Your task to perform on an android device: Show me productivity apps on the Play Store Image 0: 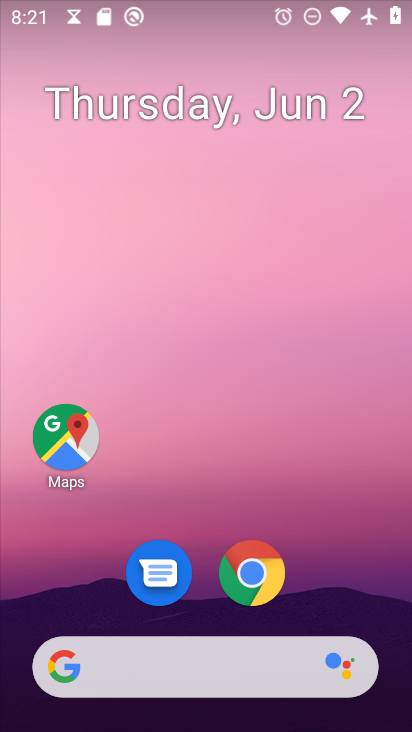
Step 0: press home button
Your task to perform on an android device: Show me productivity apps on the Play Store Image 1: 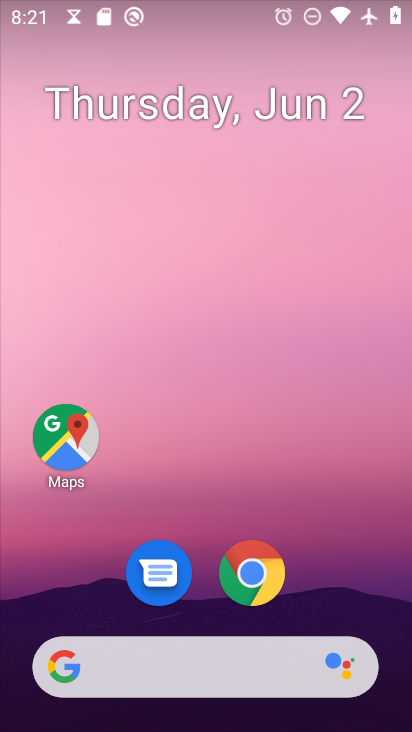
Step 1: drag from (189, 644) to (379, 34)
Your task to perform on an android device: Show me productivity apps on the Play Store Image 2: 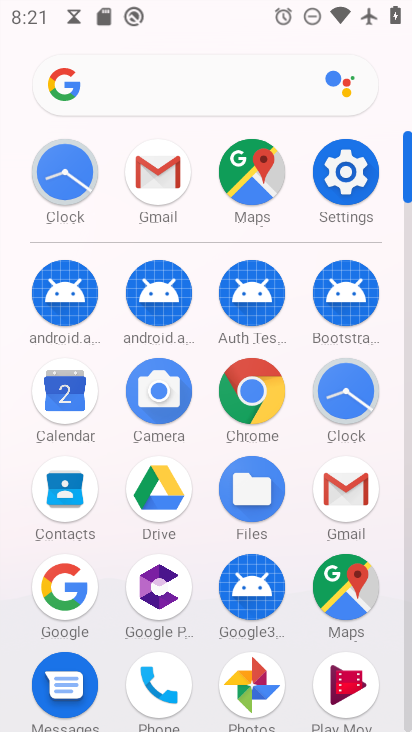
Step 2: drag from (216, 661) to (357, 309)
Your task to perform on an android device: Show me productivity apps on the Play Store Image 3: 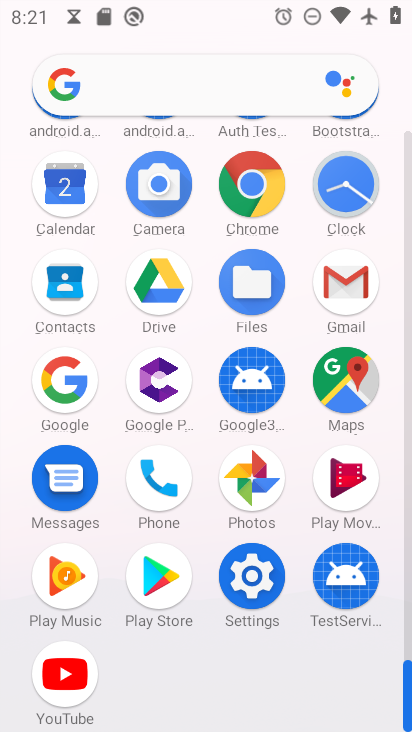
Step 3: click (160, 584)
Your task to perform on an android device: Show me productivity apps on the Play Store Image 4: 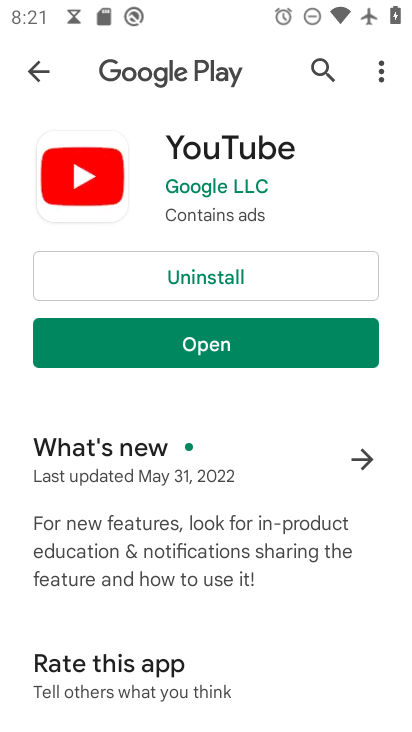
Step 4: click (41, 73)
Your task to perform on an android device: Show me productivity apps on the Play Store Image 5: 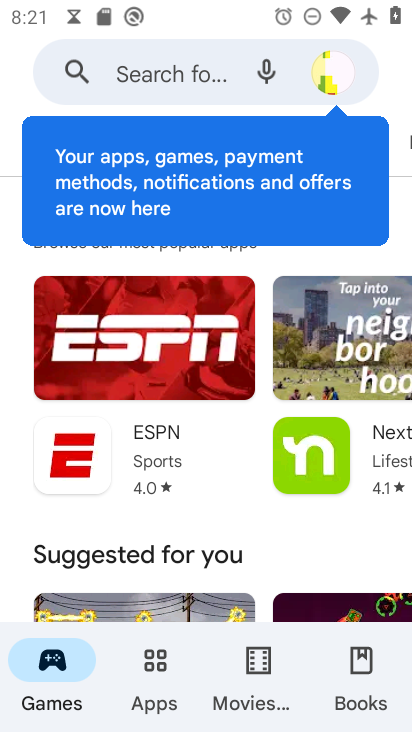
Step 5: click (154, 686)
Your task to perform on an android device: Show me productivity apps on the Play Store Image 6: 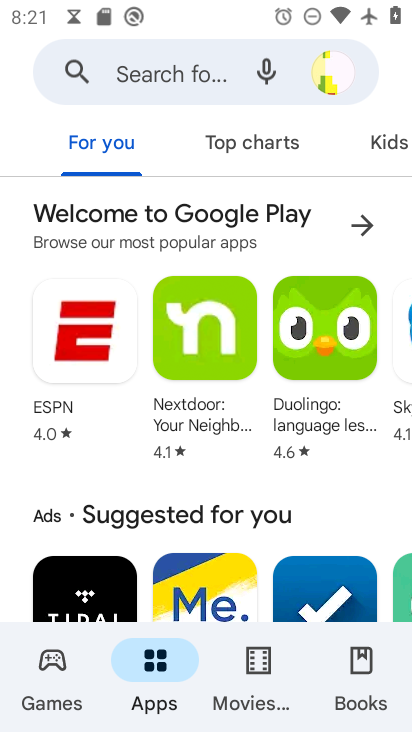
Step 6: drag from (349, 152) to (63, 152)
Your task to perform on an android device: Show me productivity apps on the Play Store Image 7: 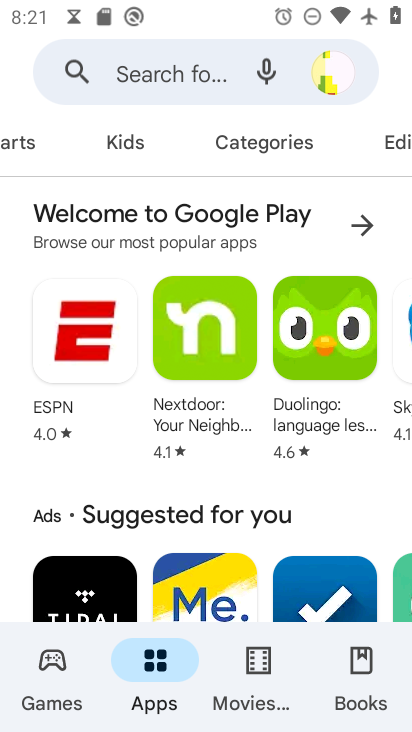
Step 7: click (279, 144)
Your task to perform on an android device: Show me productivity apps on the Play Store Image 8: 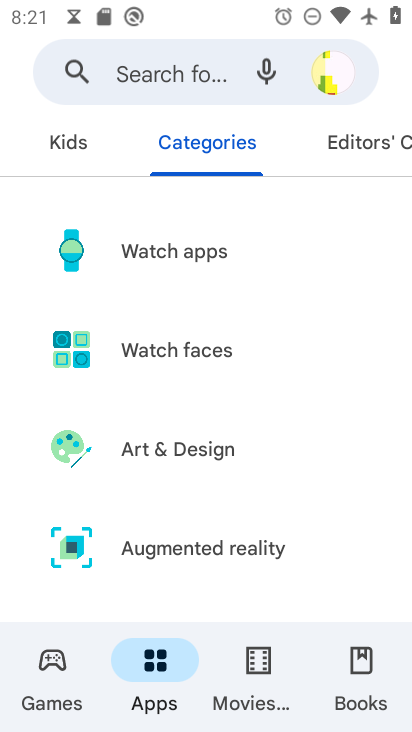
Step 8: drag from (241, 491) to (285, 104)
Your task to perform on an android device: Show me productivity apps on the Play Store Image 9: 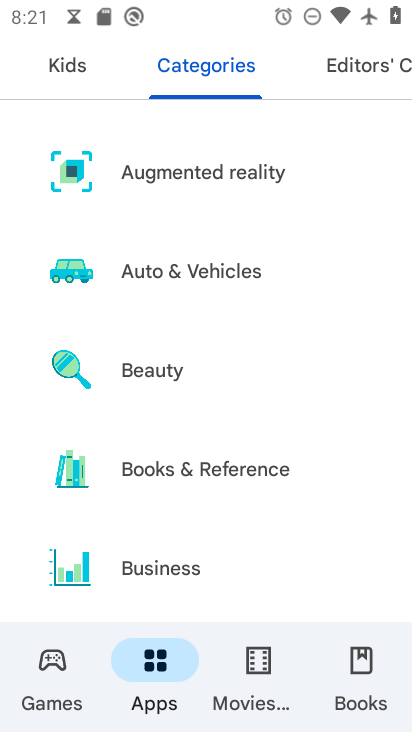
Step 9: drag from (266, 545) to (316, 106)
Your task to perform on an android device: Show me productivity apps on the Play Store Image 10: 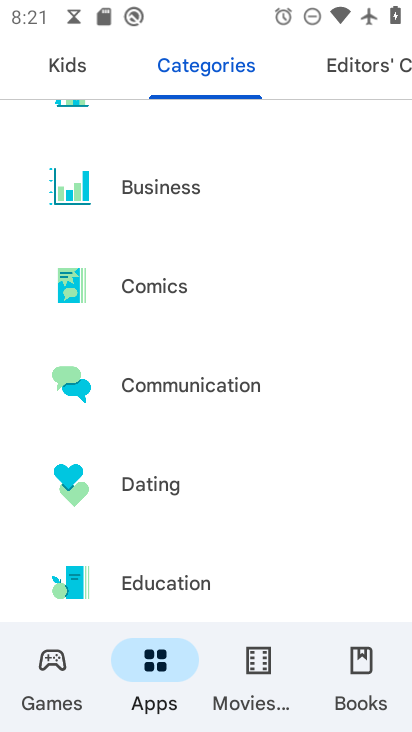
Step 10: drag from (266, 524) to (383, 77)
Your task to perform on an android device: Show me productivity apps on the Play Store Image 11: 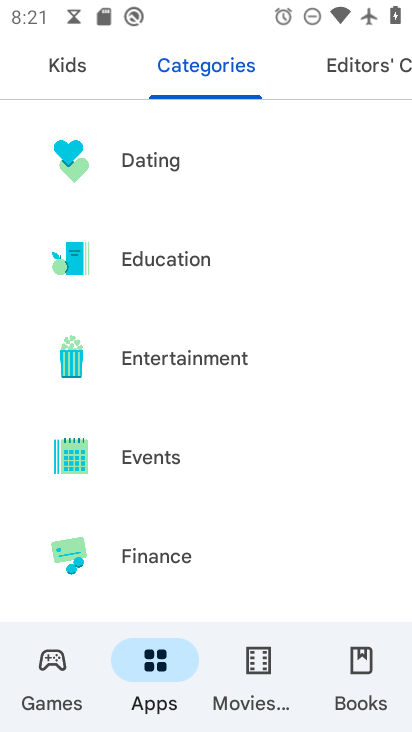
Step 11: drag from (242, 522) to (346, 79)
Your task to perform on an android device: Show me productivity apps on the Play Store Image 12: 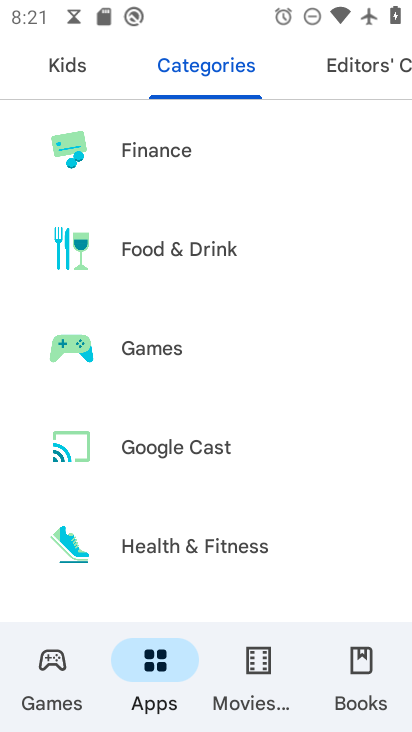
Step 12: drag from (296, 529) to (406, 96)
Your task to perform on an android device: Show me productivity apps on the Play Store Image 13: 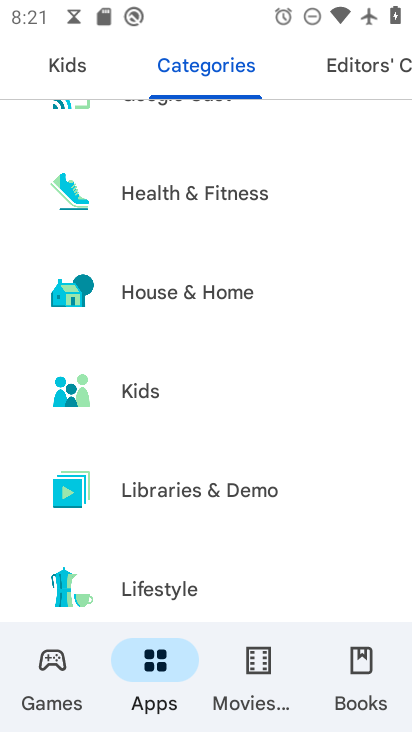
Step 13: drag from (235, 556) to (340, 128)
Your task to perform on an android device: Show me productivity apps on the Play Store Image 14: 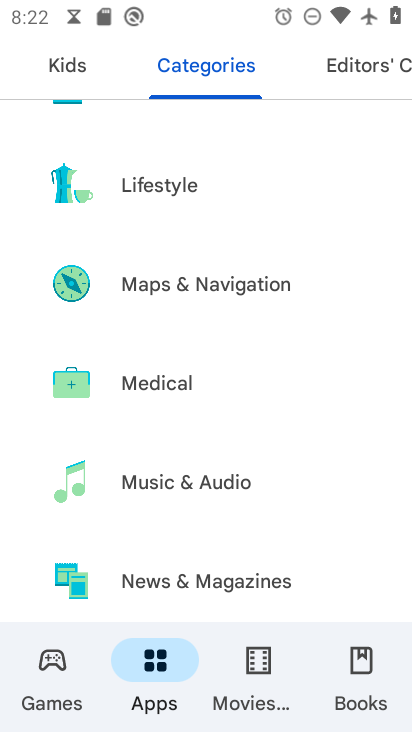
Step 14: drag from (291, 557) to (387, 101)
Your task to perform on an android device: Show me productivity apps on the Play Store Image 15: 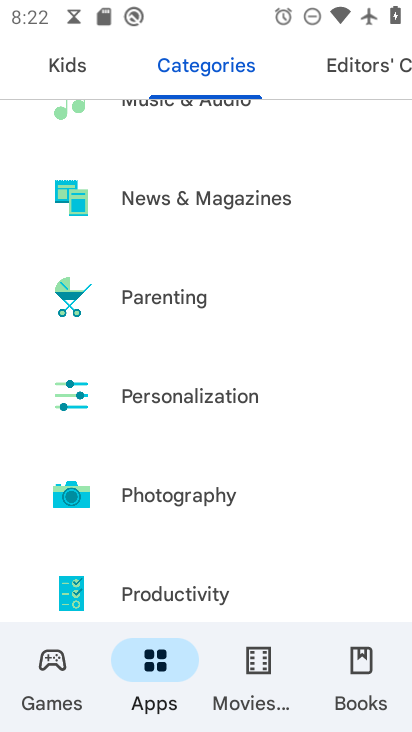
Step 15: click (171, 592)
Your task to perform on an android device: Show me productivity apps on the Play Store Image 16: 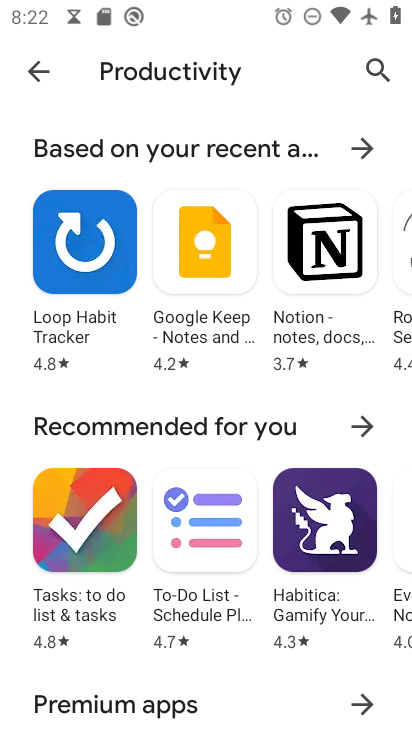
Step 16: task complete